Your task to perform on an android device: change the clock display to digital Image 0: 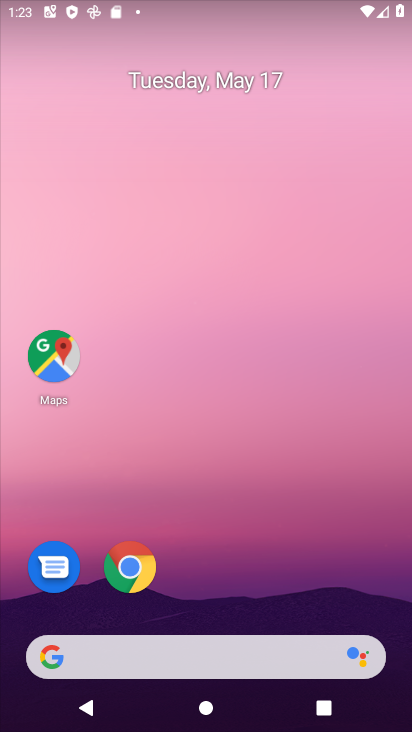
Step 0: drag from (403, 628) to (297, 31)
Your task to perform on an android device: change the clock display to digital Image 1: 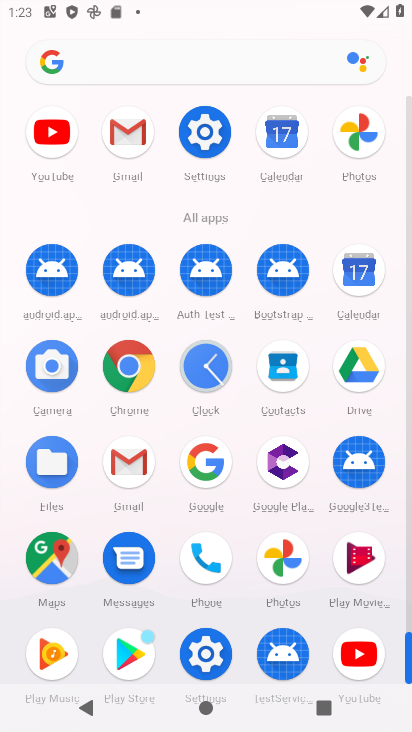
Step 1: click (206, 364)
Your task to perform on an android device: change the clock display to digital Image 2: 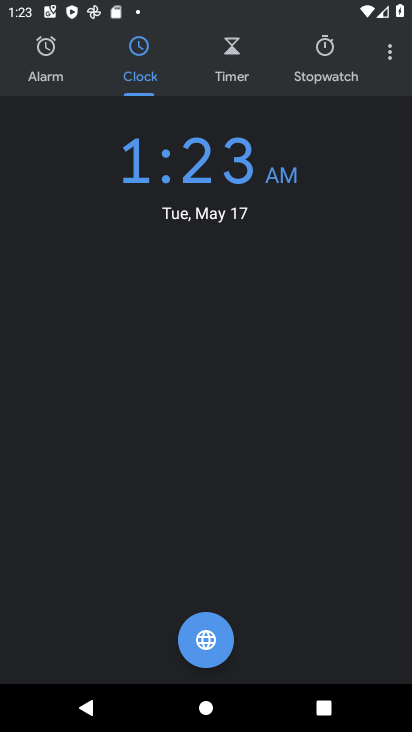
Step 2: click (391, 53)
Your task to perform on an android device: change the clock display to digital Image 3: 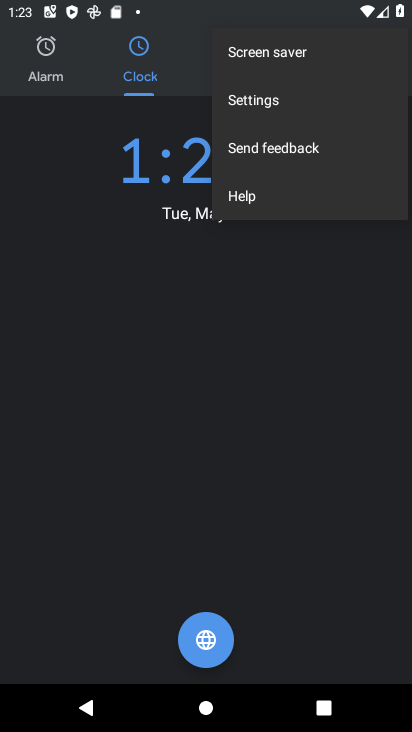
Step 3: click (251, 97)
Your task to perform on an android device: change the clock display to digital Image 4: 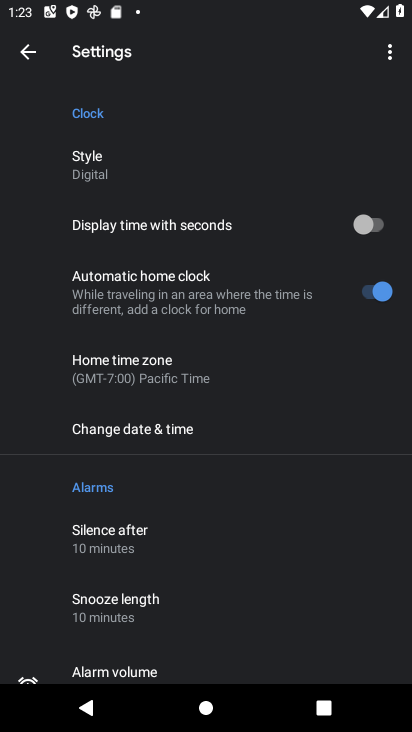
Step 4: task complete